Your task to perform on an android device: Show the shopping cart on walmart.com. Add alienware area 51 to the cart on walmart.com, then select checkout. Image 0: 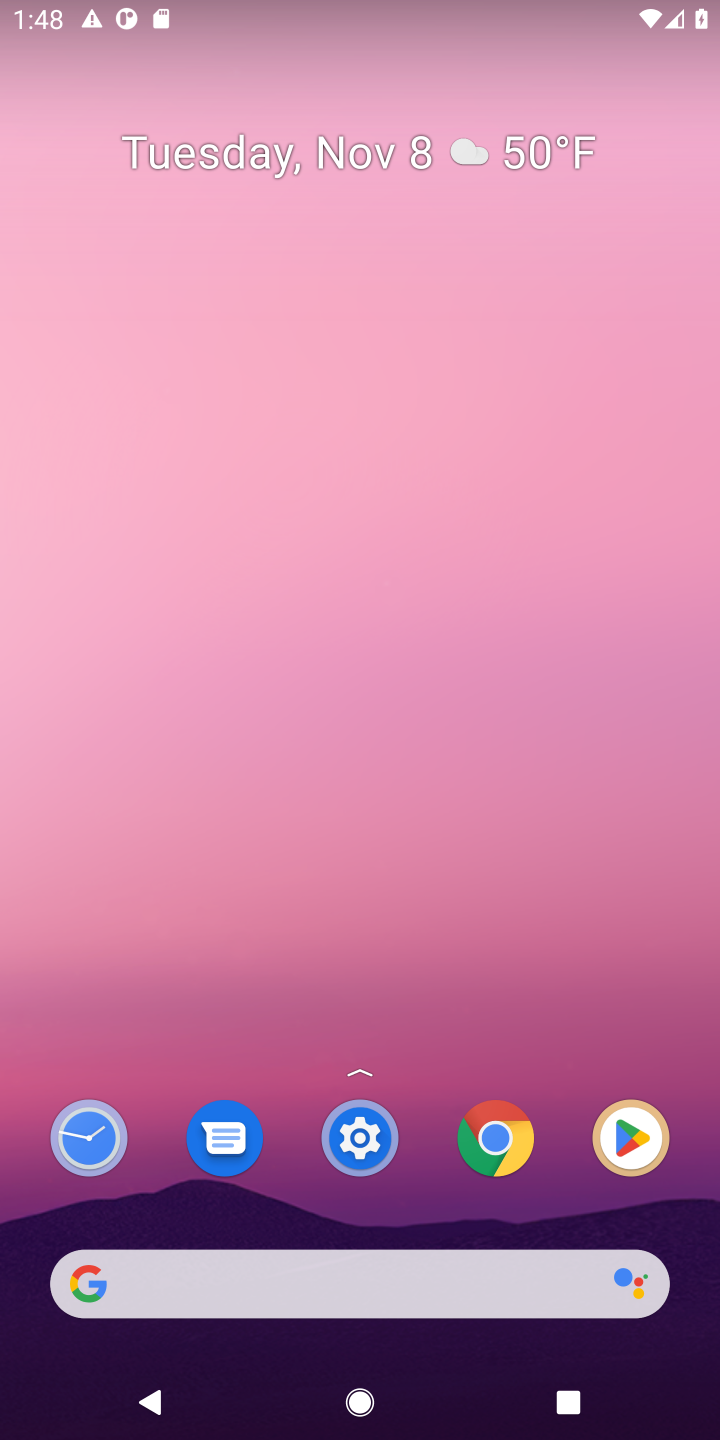
Step 0: click (334, 1287)
Your task to perform on an android device: Show the shopping cart on walmart.com. Add alienware area 51 to the cart on walmart.com, then select checkout. Image 1: 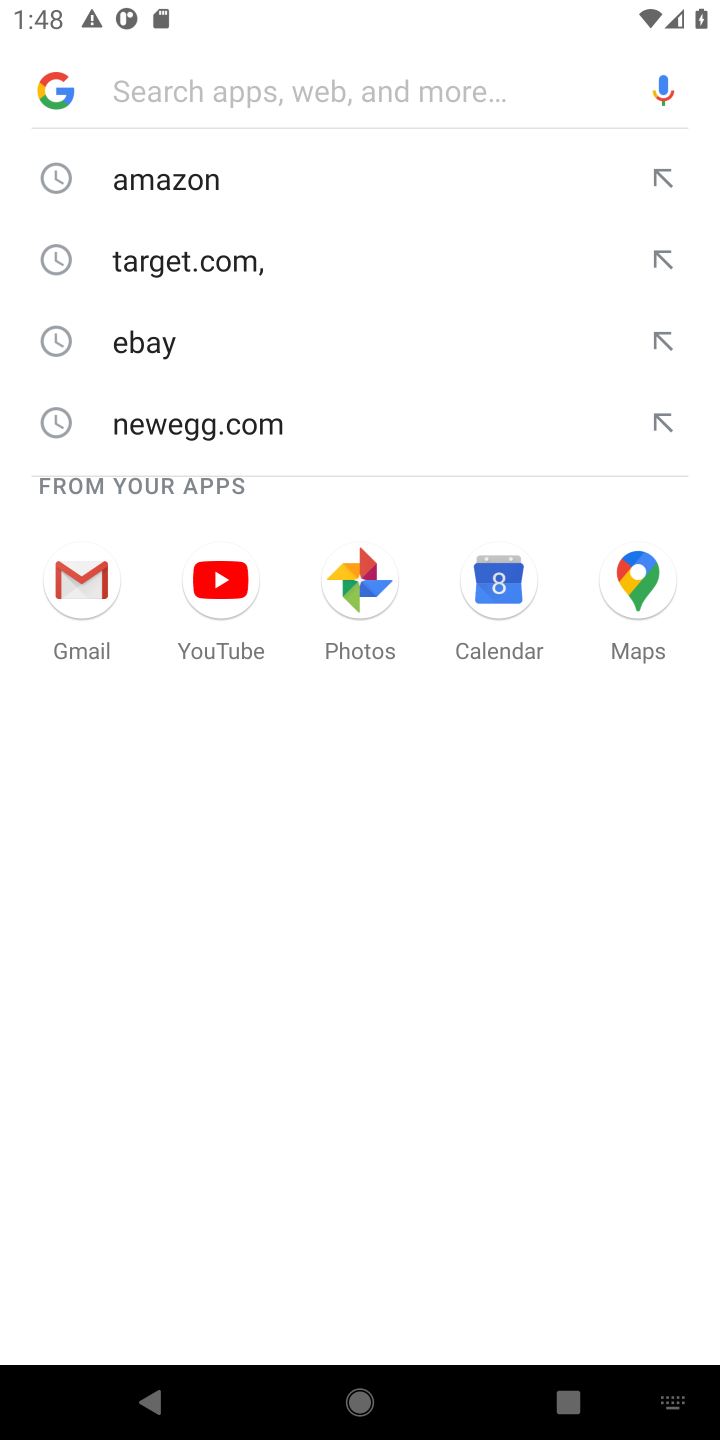
Step 1: type "walmart"
Your task to perform on an android device: Show the shopping cart on walmart.com. Add alienware area 51 to the cart on walmart.com, then select checkout. Image 2: 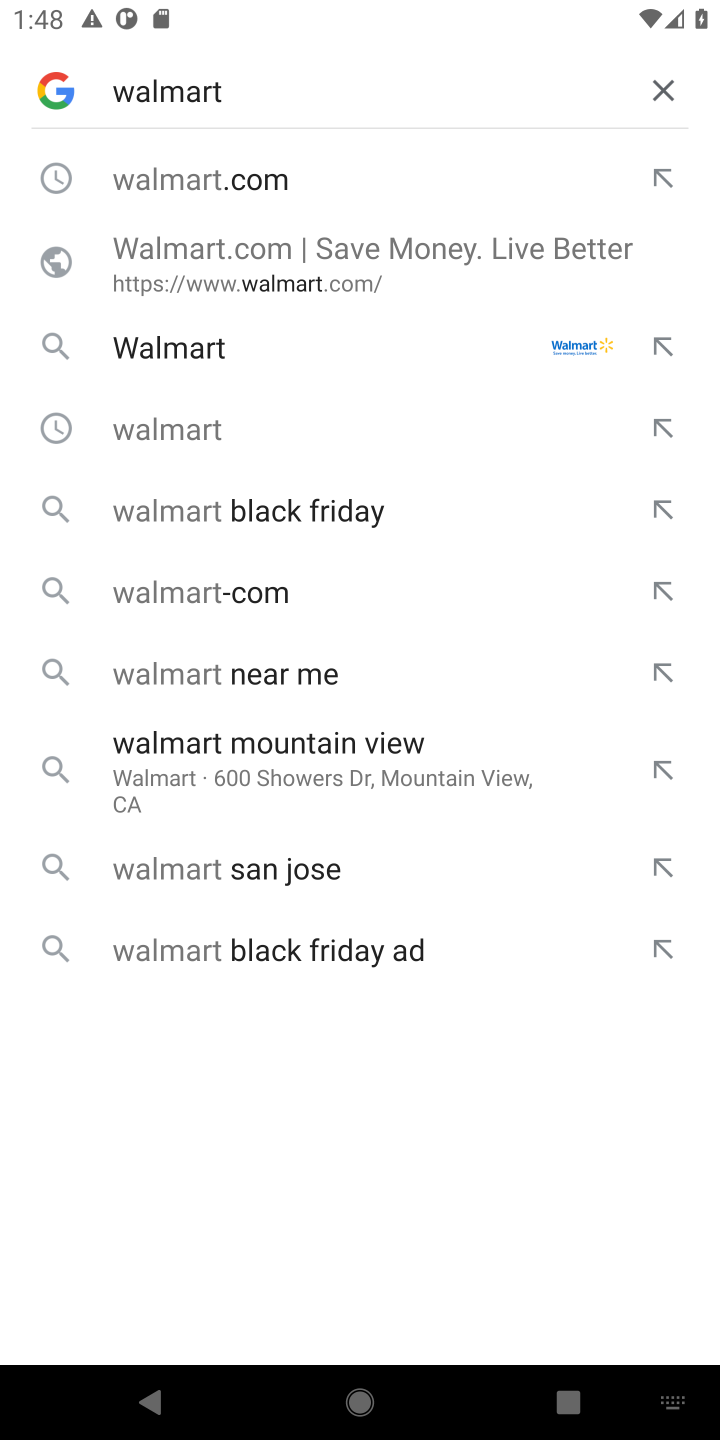
Step 2: click (262, 211)
Your task to perform on an android device: Show the shopping cart on walmart.com. Add alienware area 51 to the cart on walmart.com, then select checkout. Image 3: 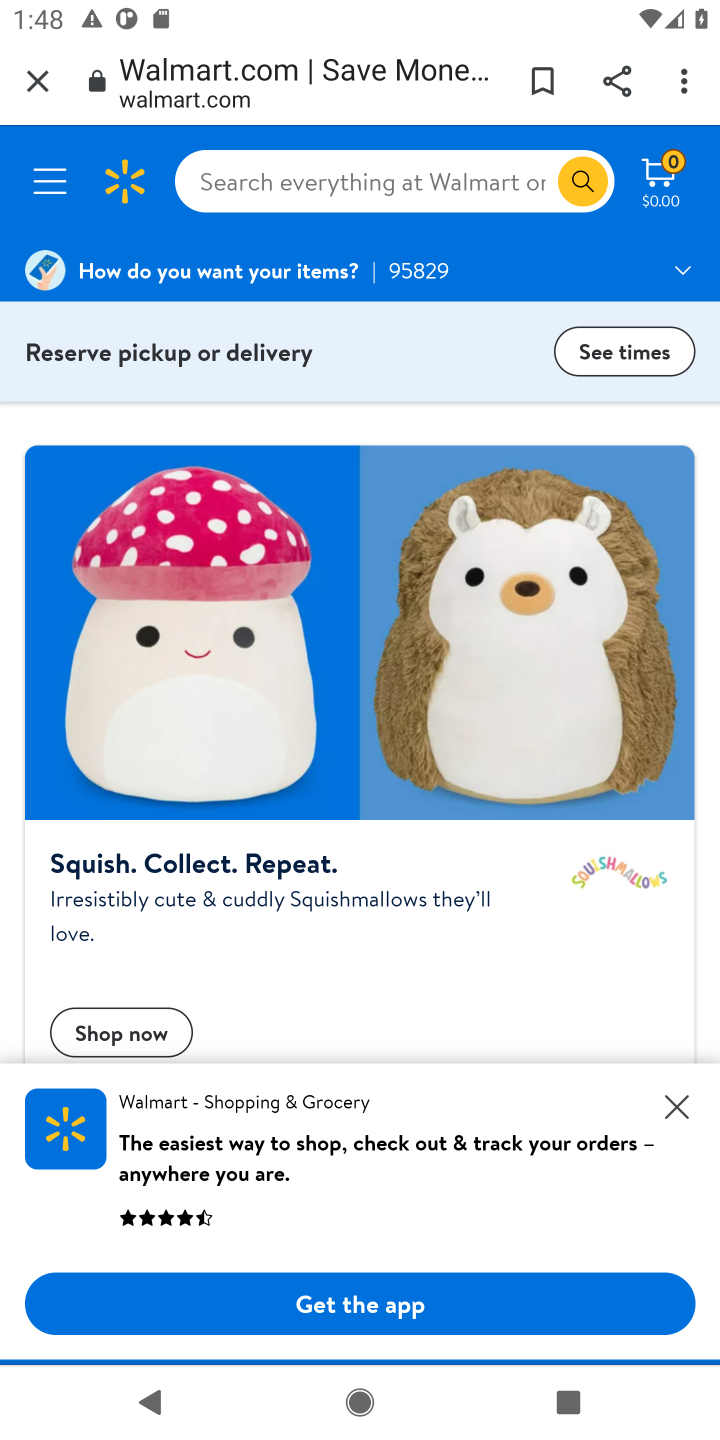
Step 3: task complete